Your task to perform on an android device: Open accessibility settings Image 0: 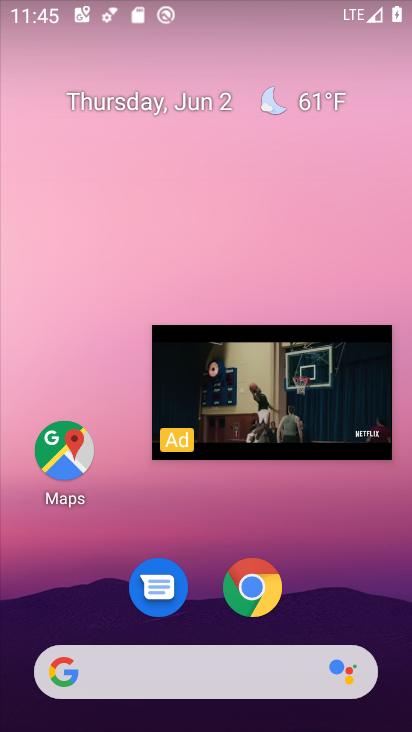
Step 0: drag from (301, 404) to (203, 703)
Your task to perform on an android device: Open accessibility settings Image 1: 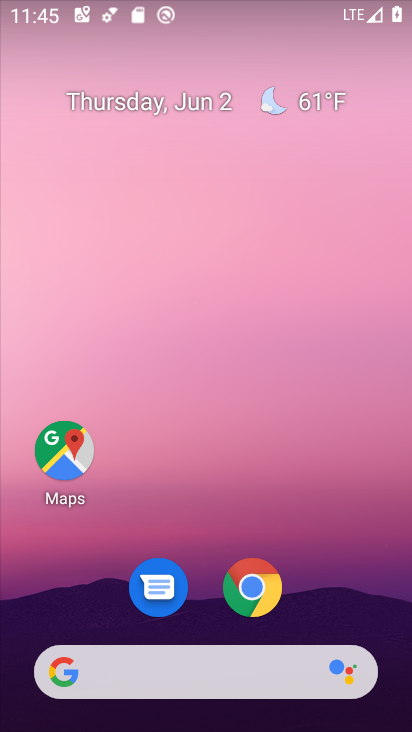
Step 1: drag from (211, 513) to (175, 32)
Your task to perform on an android device: Open accessibility settings Image 2: 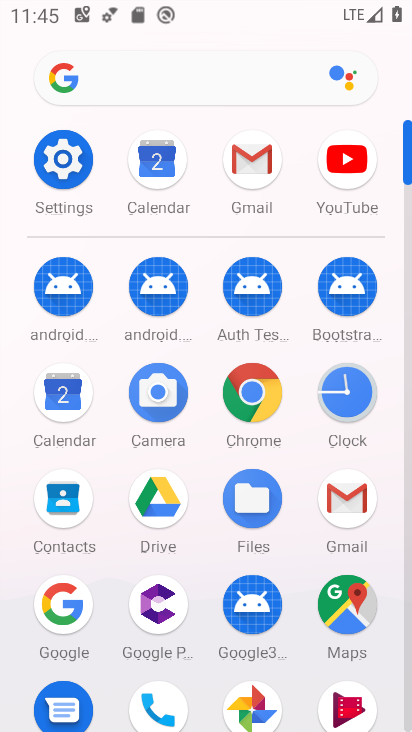
Step 2: click (70, 150)
Your task to perform on an android device: Open accessibility settings Image 3: 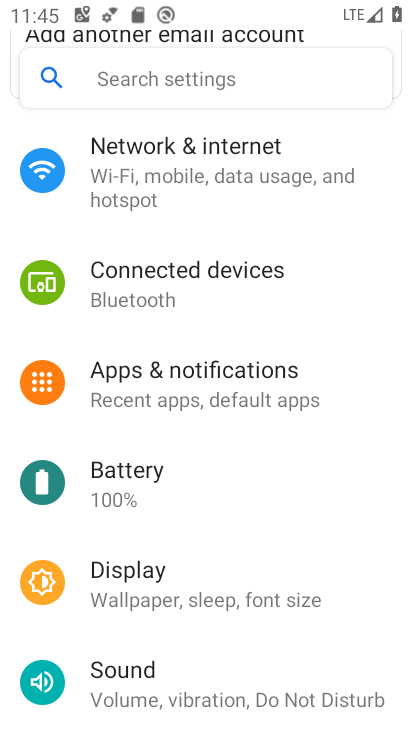
Step 3: drag from (207, 557) to (226, 9)
Your task to perform on an android device: Open accessibility settings Image 4: 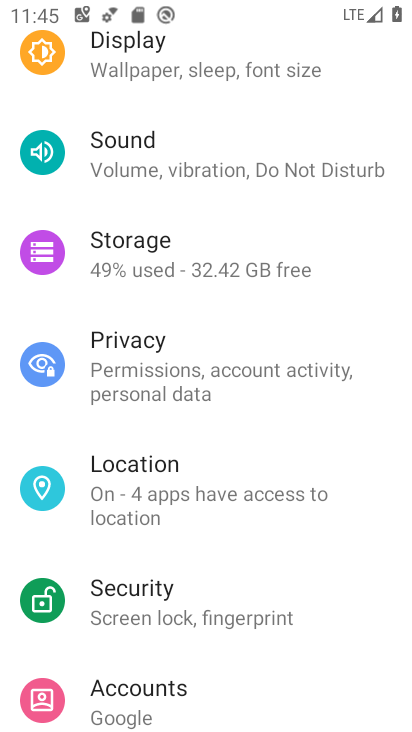
Step 4: drag from (221, 547) to (219, 137)
Your task to perform on an android device: Open accessibility settings Image 5: 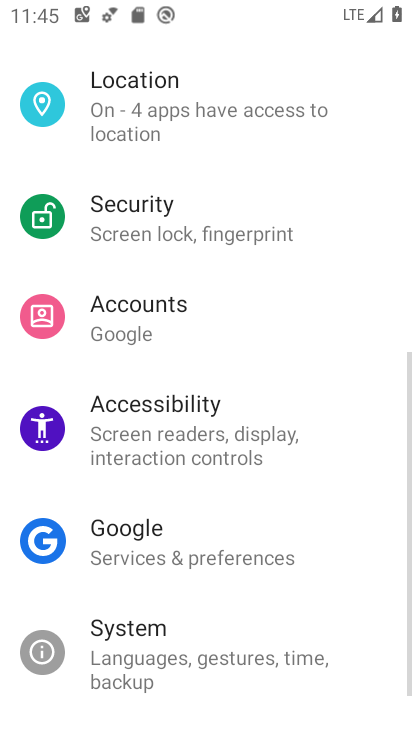
Step 5: click (187, 411)
Your task to perform on an android device: Open accessibility settings Image 6: 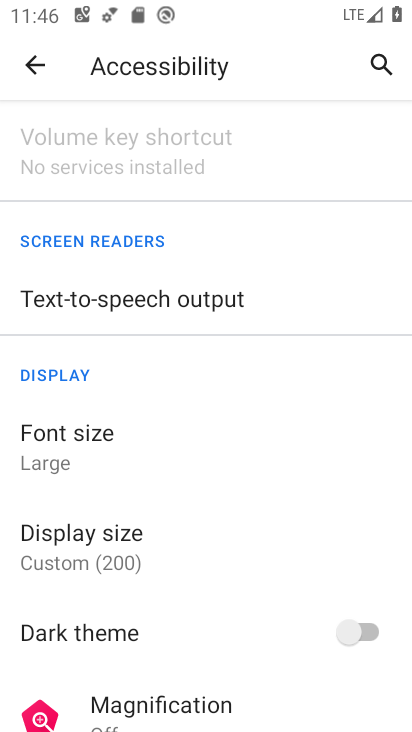
Step 6: task complete